Your task to perform on an android device: choose inbox layout in the gmail app Image 0: 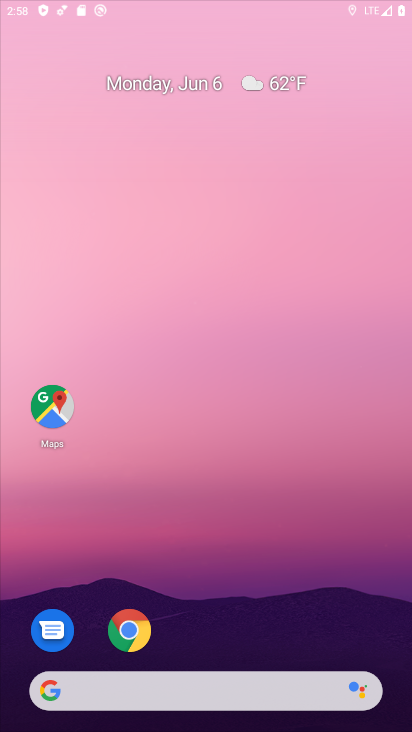
Step 0: click (108, 632)
Your task to perform on an android device: choose inbox layout in the gmail app Image 1: 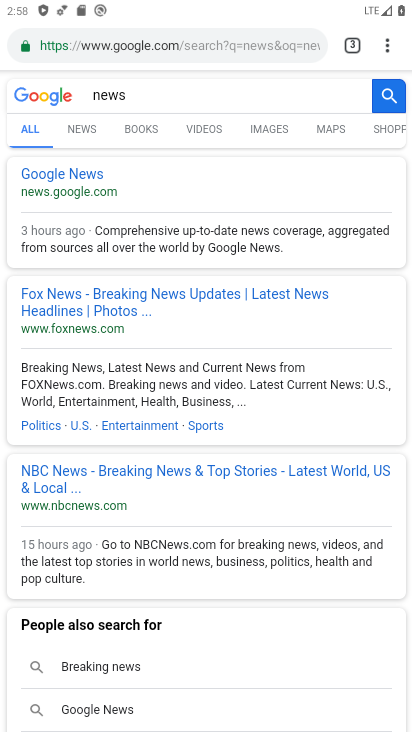
Step 1: press home button
Your task to perform on an android device: choose inbox layout in the gmail app Image 2: 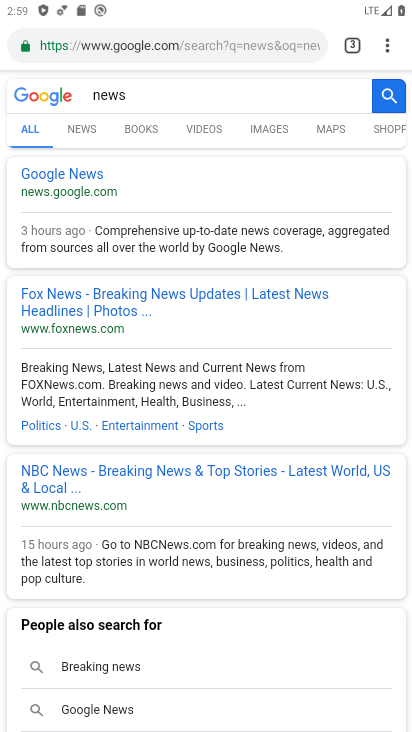
Step 2: drag from (268, 580) to (277, 2)
Your task to perform on an android device: choose inbox layout in the gmail app Image 3: 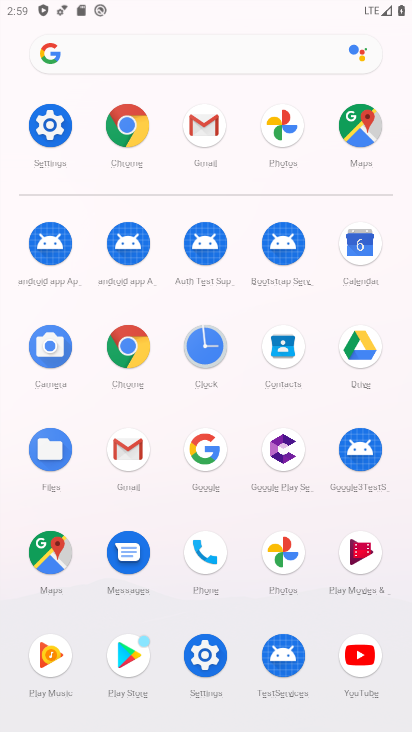
Step 3: click (147, 454)
Your task to perform on an android device: choose inbox layout in the gmail app Image 4: 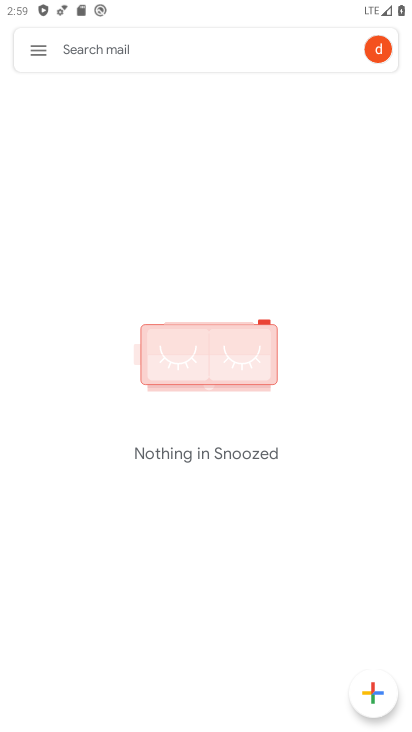
Step 4: click (36, 39)
Your task to perform on an android device: choose inbox layout in the gmail app Image 5: 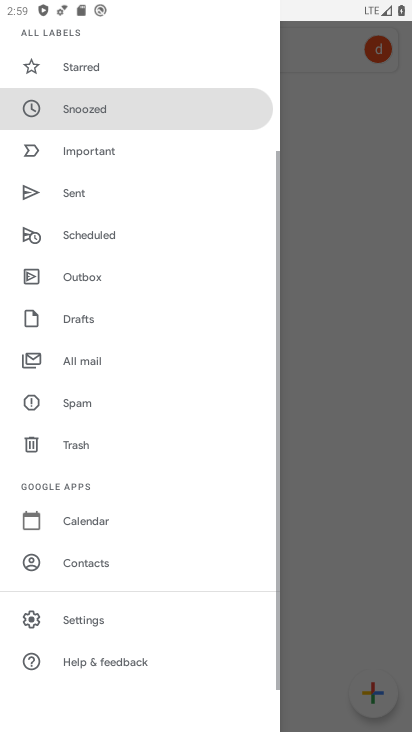
Step 5: drag from (119, 648) to (119, 602)
Your task to perform on an android device: choose inbox layout in the gmail app Image 6: 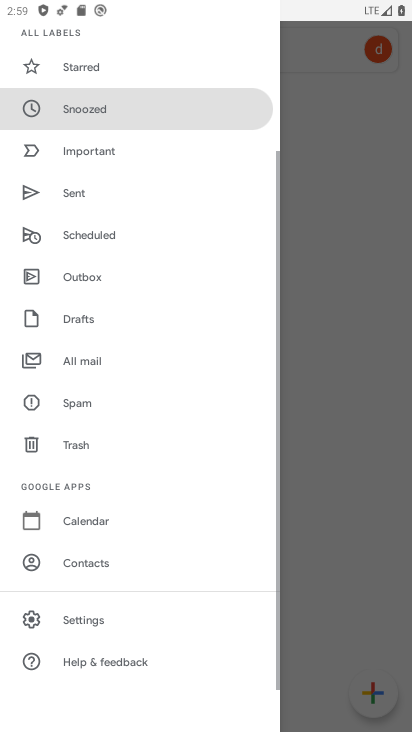
Step 6: click (96, 628)
Your task to perform on an android device: choose inbox layout in the gmail app Image 7: 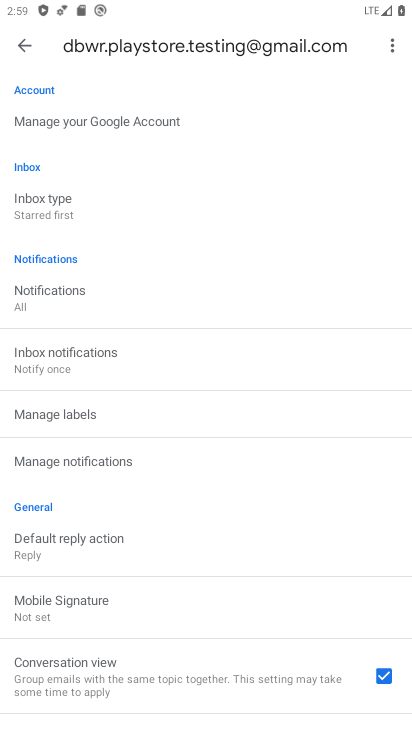
Step 7: click (46, 208)
Your task to perform on an android device: choose inbox layout in the gmail app Image 8: 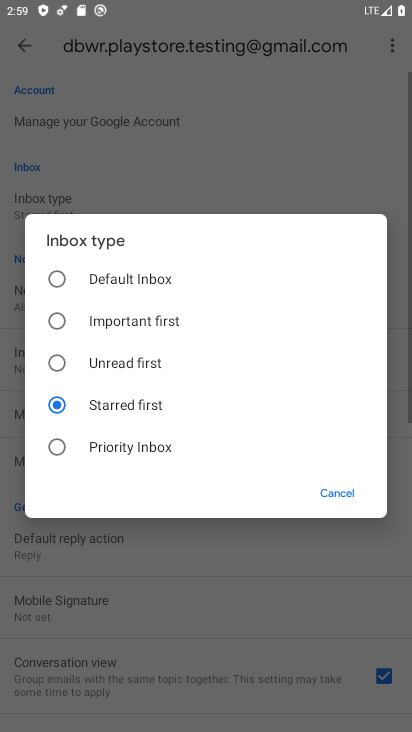
Step 8: click (74, 315)
Your task to perform on an android device: choose inbox layout in the gmail app Image 9: 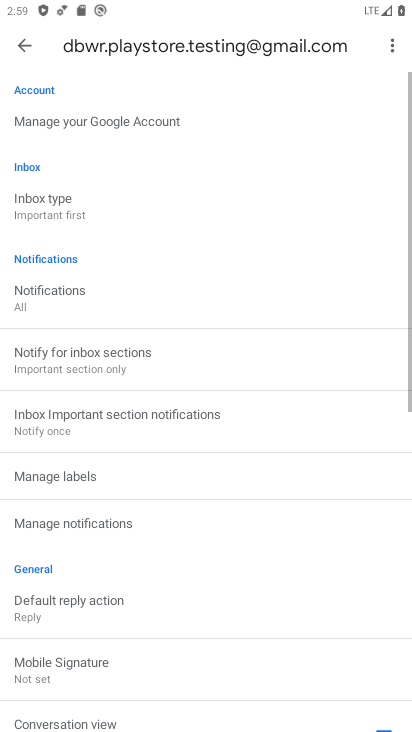
Step 9: task complete